Your task to perform on an android device: Open network settings Image 0: 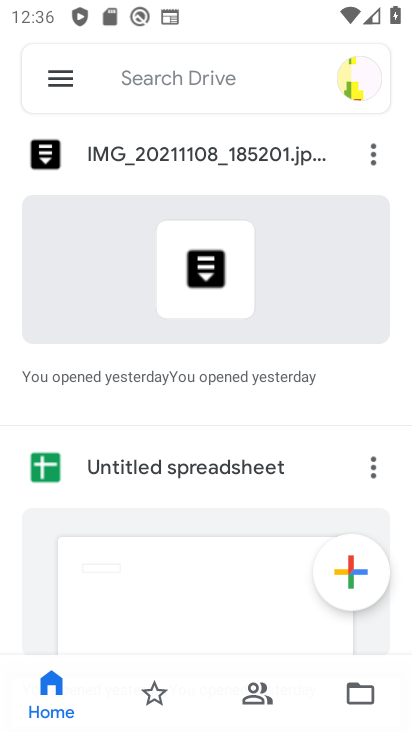
Step 0: press home button
Your task to perform on an android device: Open network settings Image 1: 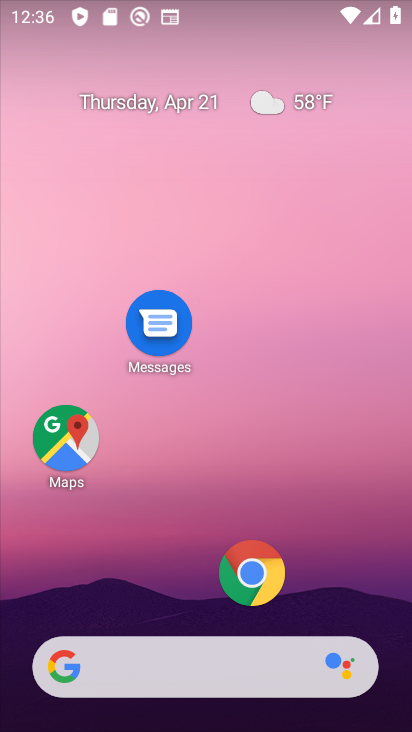
Step 1: drag from (201, 483) to (240, 104)
Your task to perform on an android device: Open network settings Image 2: 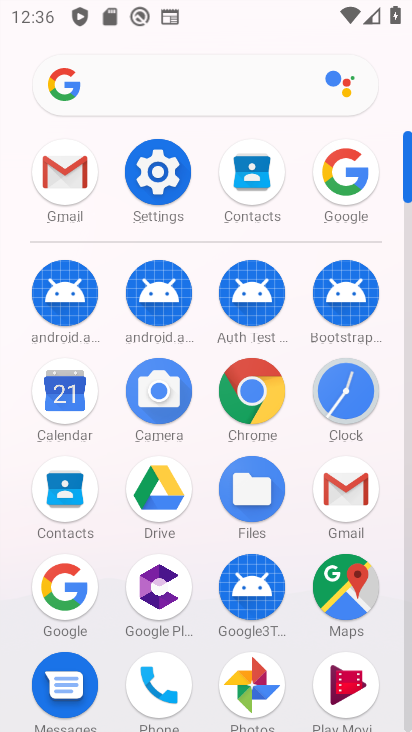
Step 2: click (154, 179)
Your task to perform on an android device: Open network settings Image 3: 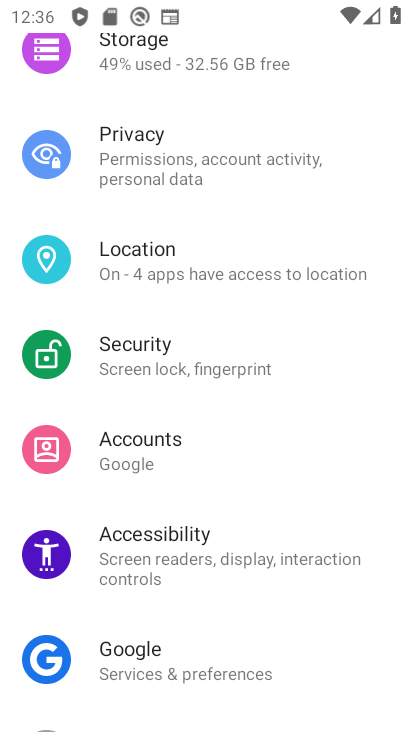
Step 3: drag from (191, 141) to (221, 676)
Your task to perform on an android device: Open network settings Image 4: 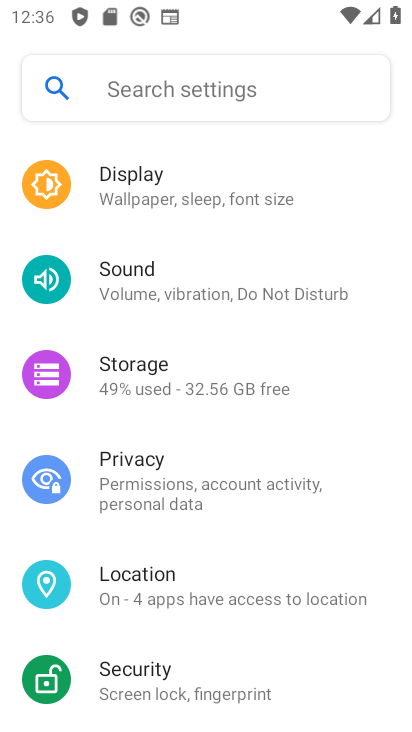
Step 4: drag from (189, 258) to (248, 664)
Your task to perform on an android device: Open network settings Image 5: 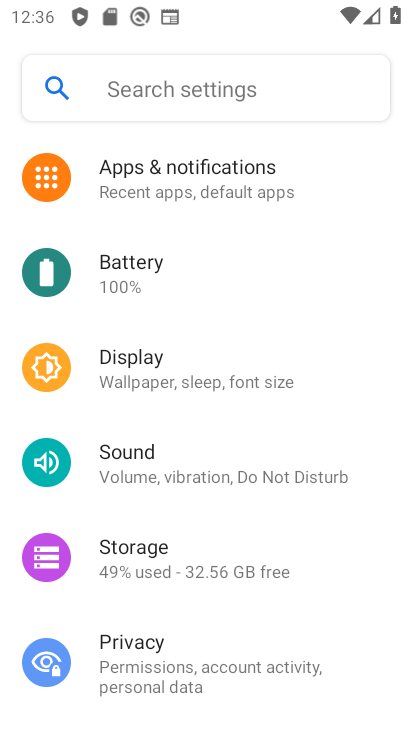
Step 5: drag from (165, 167) to (174, 638)
Your task to perform on an android device: Open network settings Image 6: 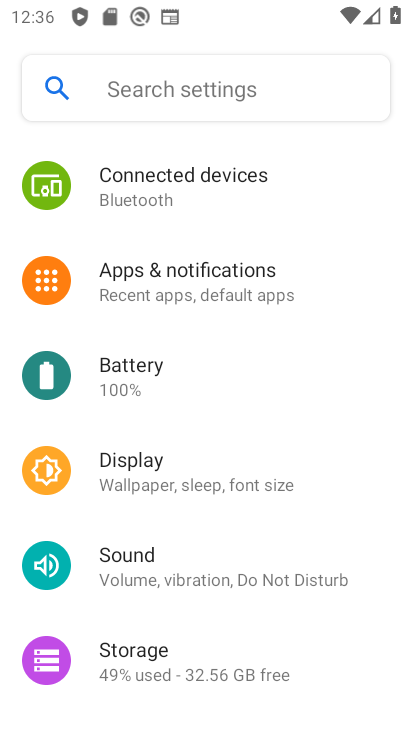
Step 6: drag from (186, 156) to (230, 627)
Your task to perform on an android device: Open network settings Image 7: 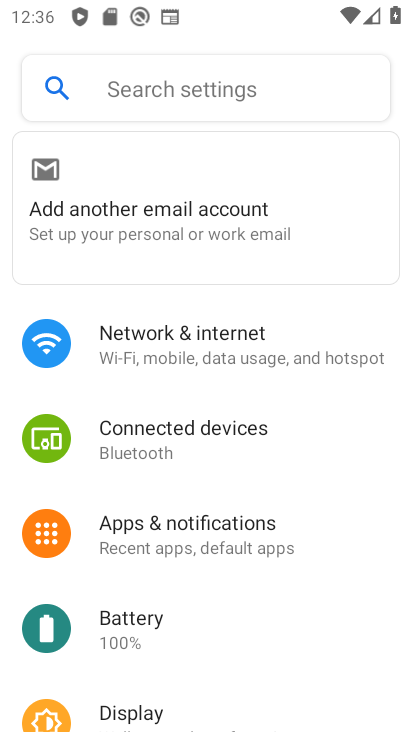
Step 7: click (200, 354)
Your task to perform on an android device: Open network settings Image 8: 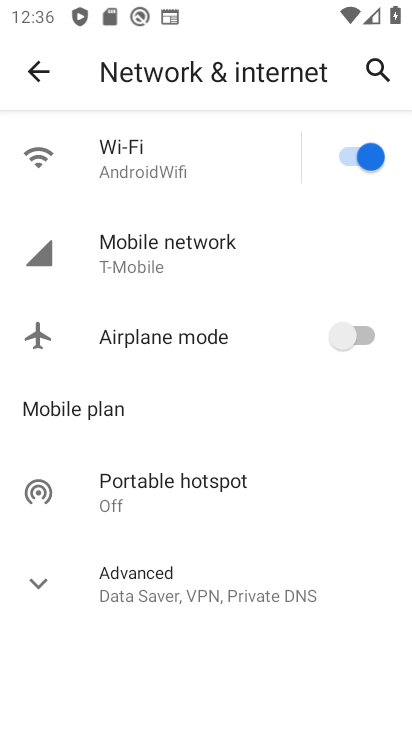
Step 8: click (185, 248)
Your task to perform on an android device: Open network settings Image 9: 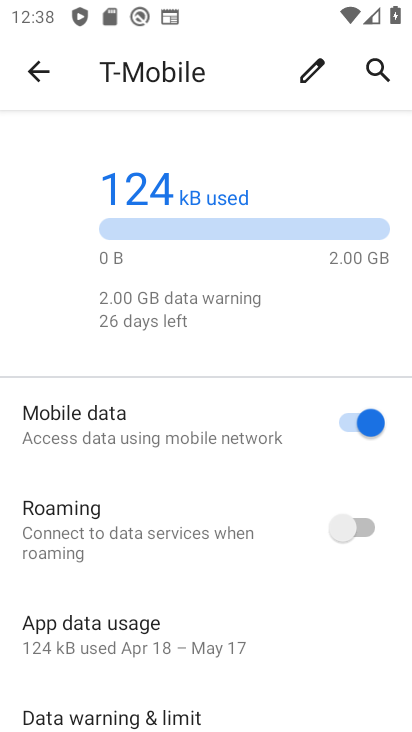
Step 9: task complete